Your task to perform on an android device: Search for Italian restaurants on Maps Image 0: 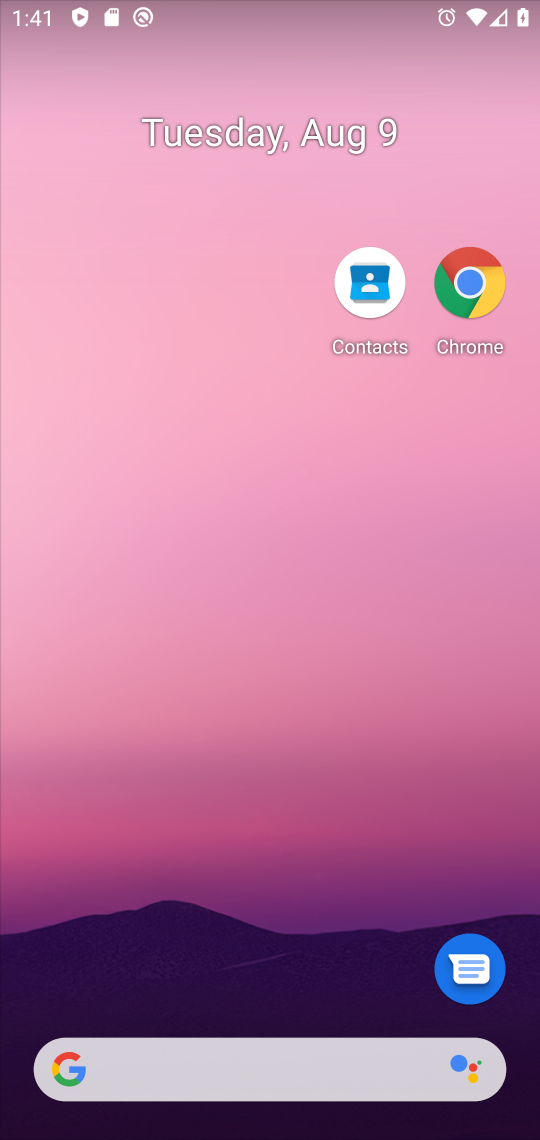
Step 0: drag from (235, 983) to (263, 171)
Your task to perform on an android device: Search for Italian restaurants on Maps Image 1: 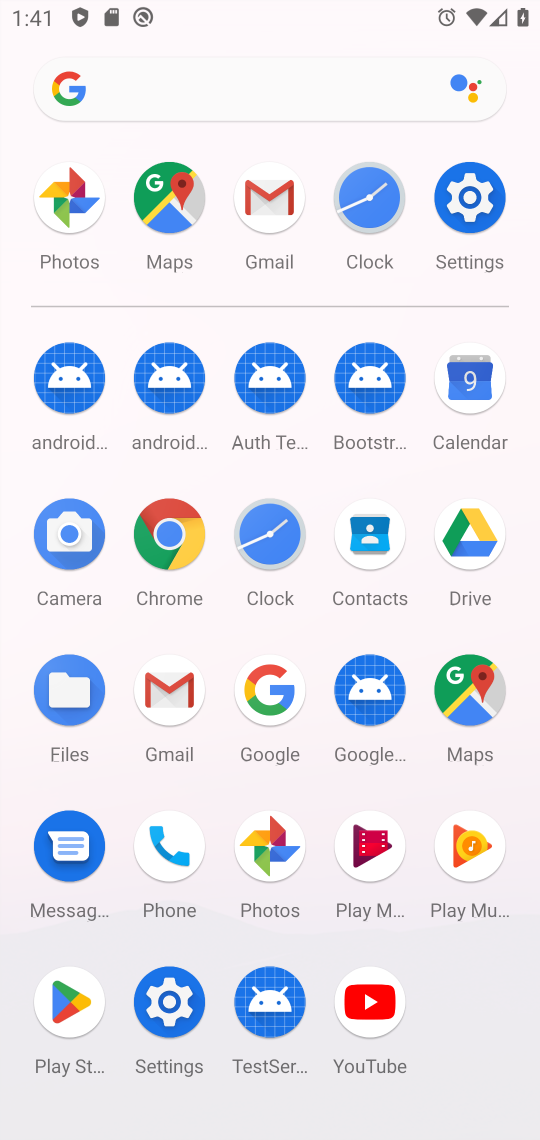
Step 1: click (473, 683)
Your task to perform on an android device: Search for Italian restaurants on Maps Image 2: 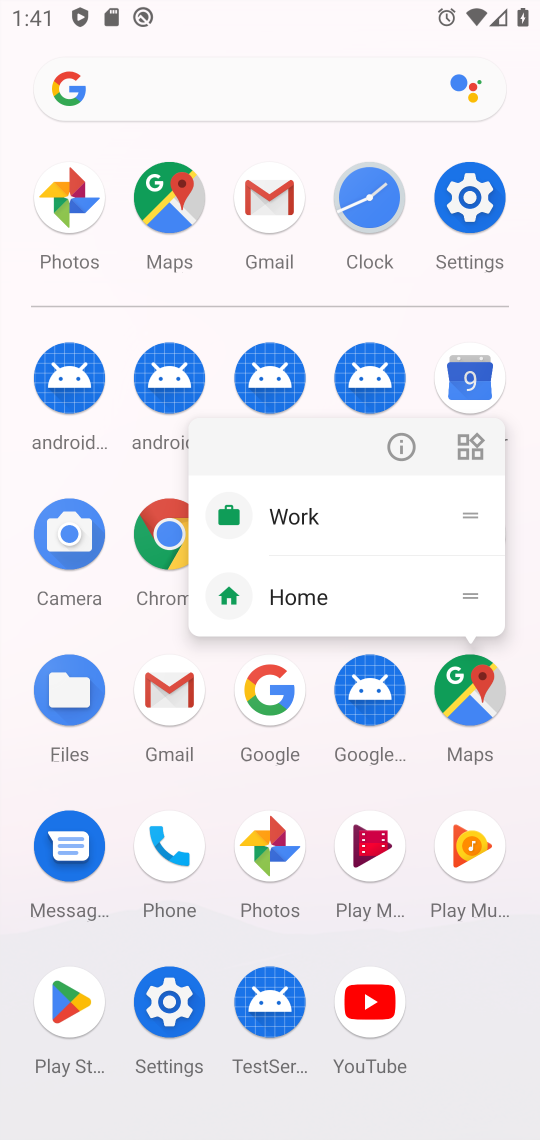
Step 2: click (386, 450)
Your task to perform on an android device: Search for Italian restaurants on Maps Image 3: 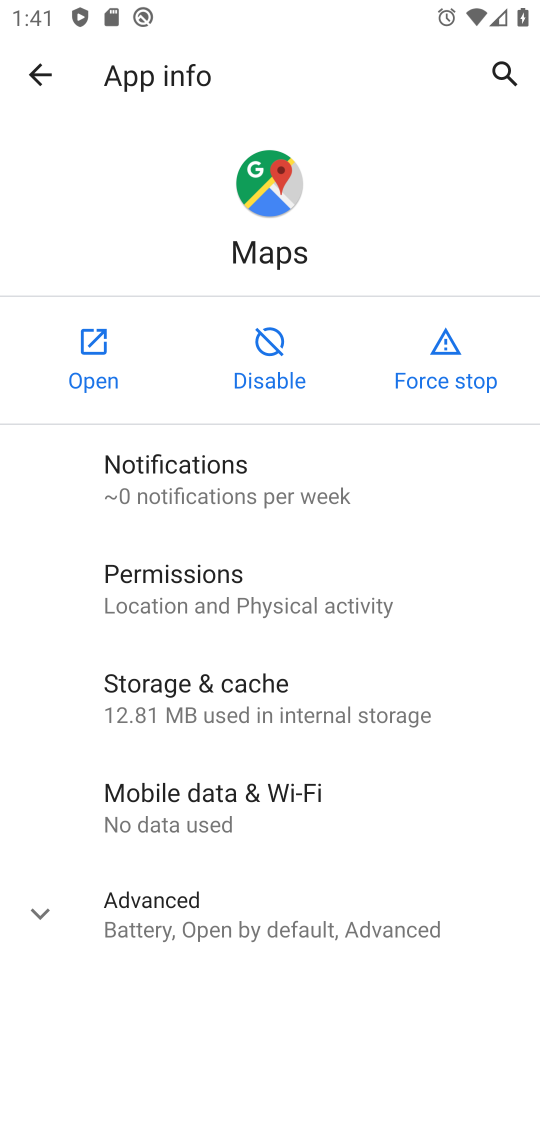
Step 3: click (92, 363)
Your task to perform on an android device: Search for Italian restaurants on Maps Image 4: 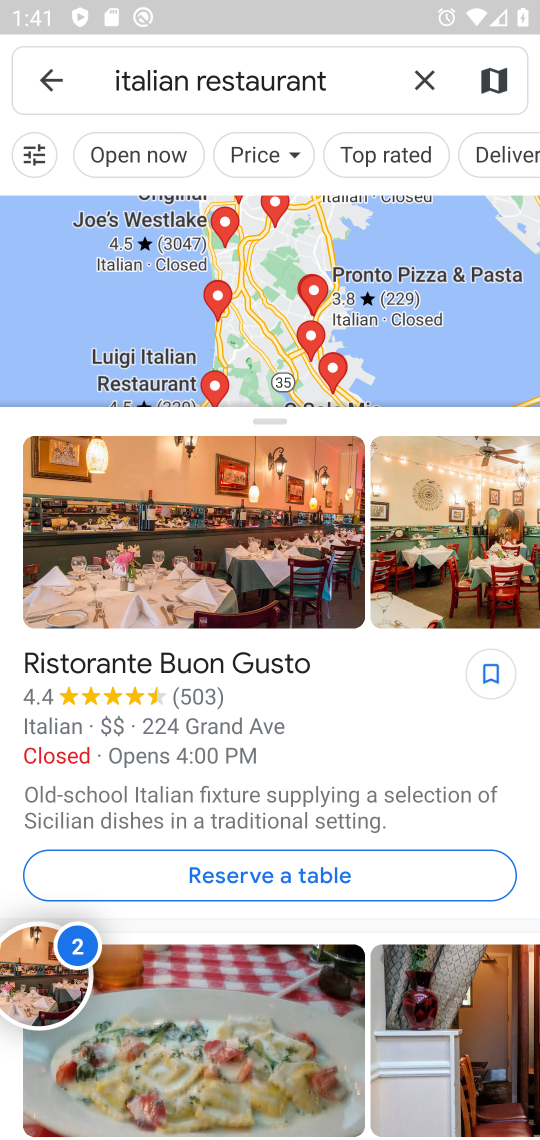
Step 4: task complete